Your task to perform on an android device: delete the emails in spam in the gmail app Image 0: 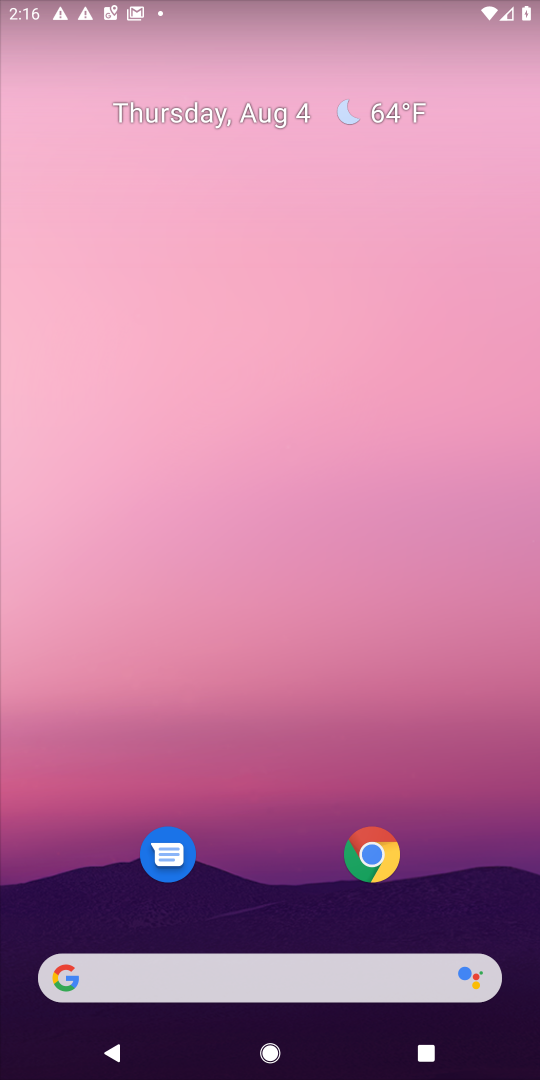
Step 0: drag from (255, 657) to (255, 299)
Your task to perform on an android device: delete the emails in spam in the gmail app Image 1: 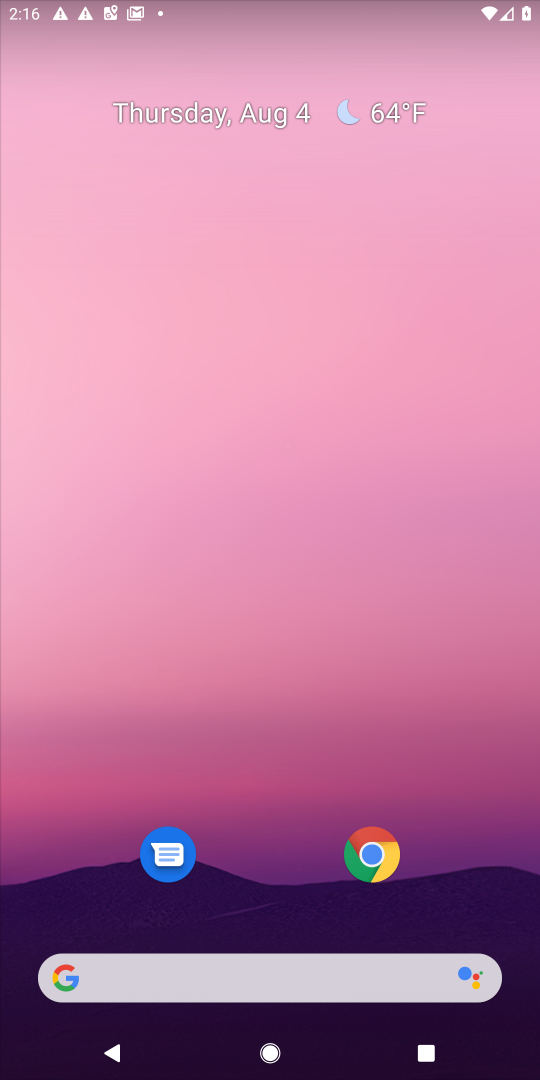
Step 1: drag from (282, 872) to (346, 221)
Your task to perform on an android device: delete the emails in spam in the gmail app Image 2: 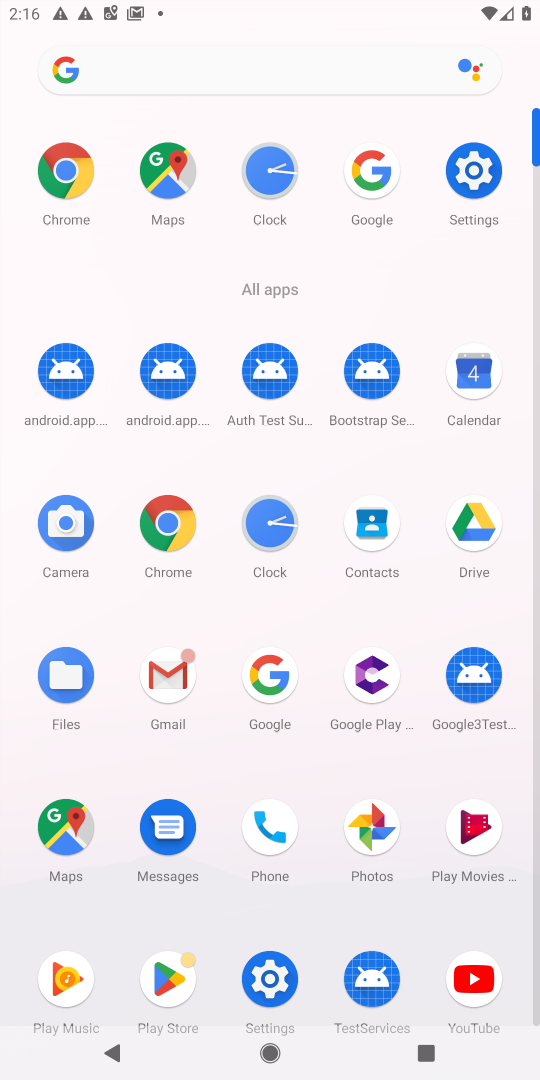
Step 2: click (171, 676)
Your task to perform on an android device: delete the emails in spam in the gmail app Image 3: 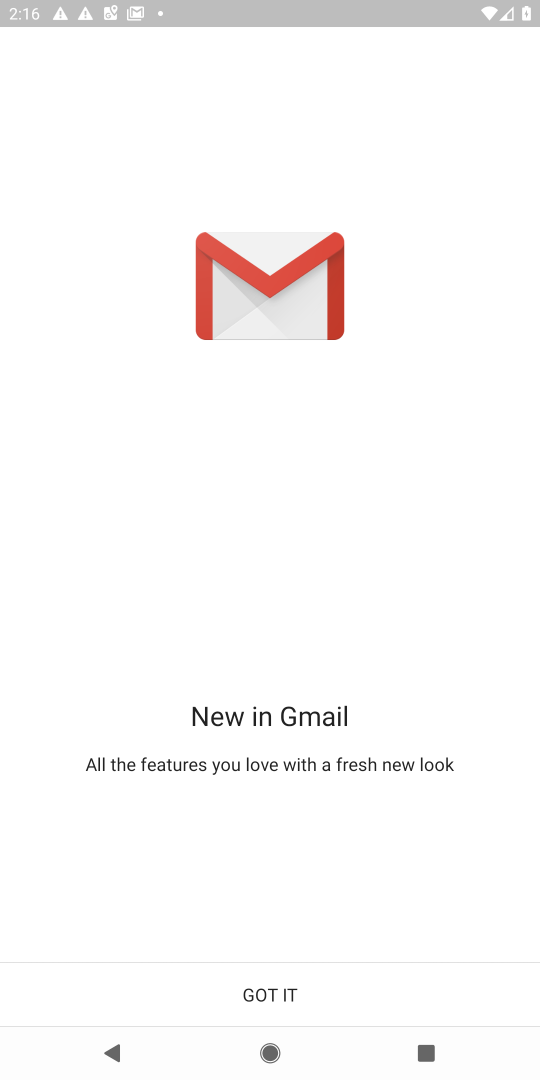
Step 3: click (251, 1006)
Your task to perform on an android device: delete the emails in spam in the gmail app Image 4: 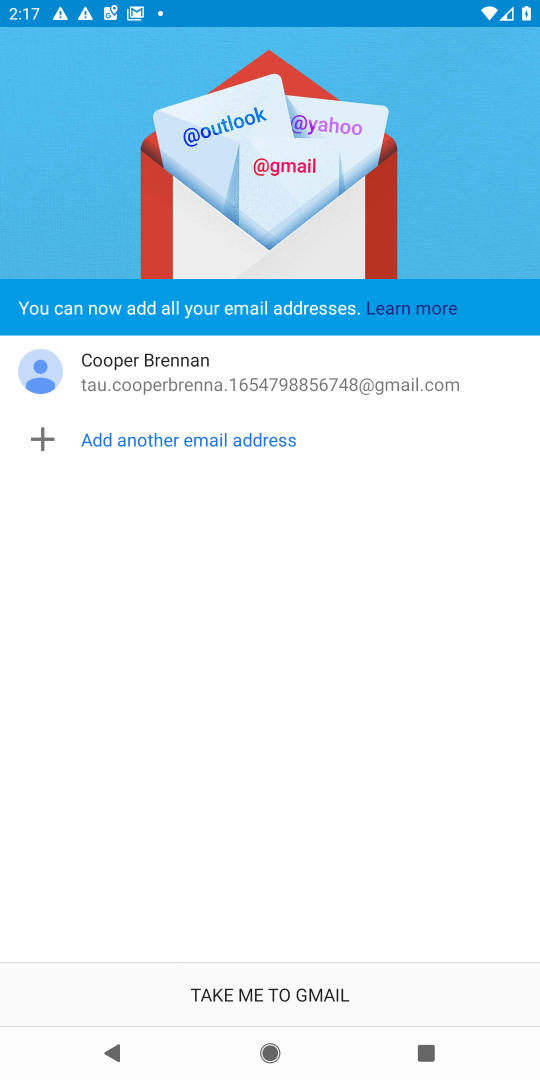
Step 4: click (255, 981)
Your task to perform on an android device: delete the emails in spam in the gmail app Image 5: 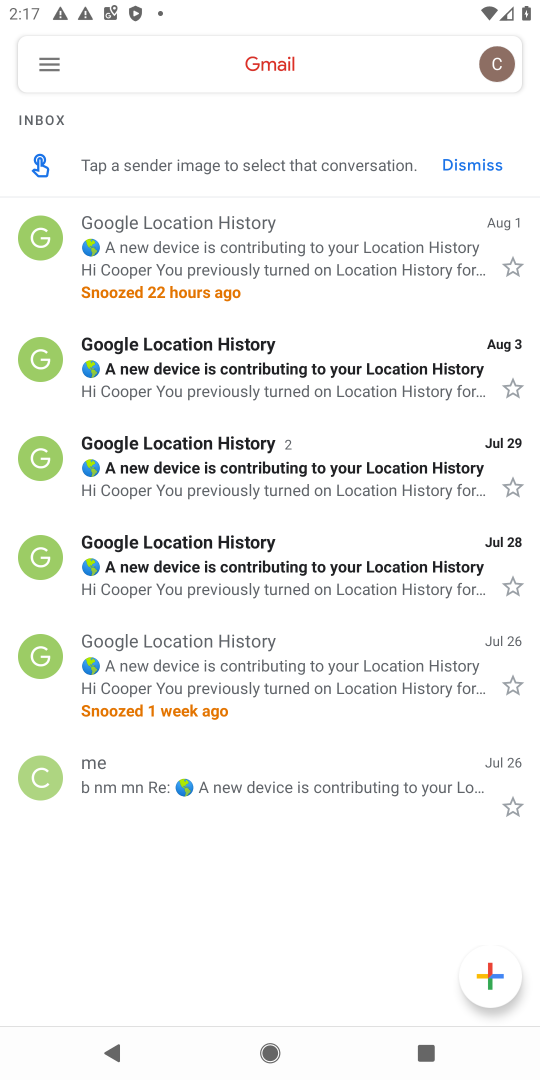
Step 5: click (299, 69)
Your task to perform on an android device: delete the emails in spam in the gmail app Image 6: 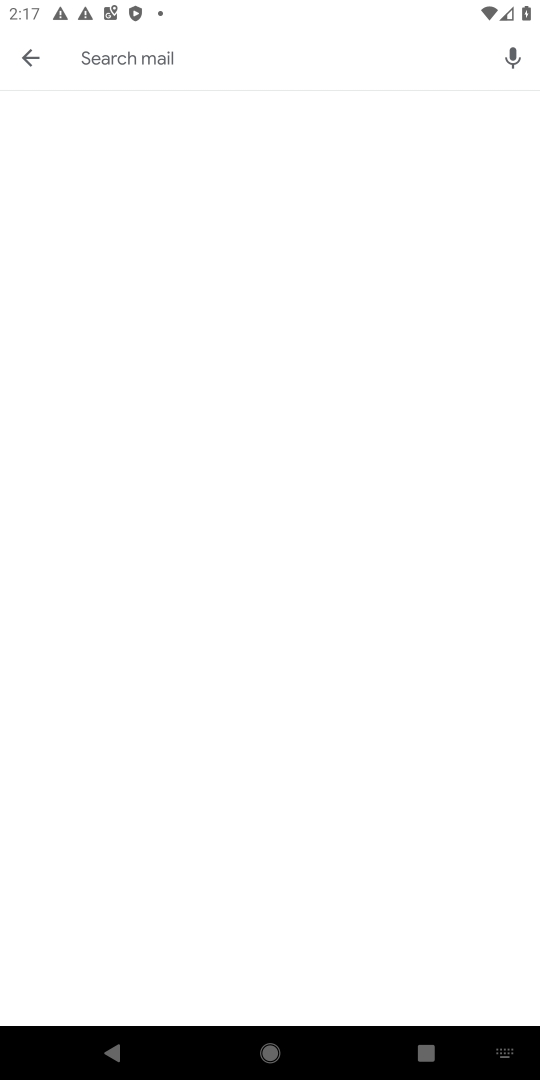
Step 6: click (40, 53)
Your task to perform on an android device: delete the emails in spam in the gmail app Image 7: 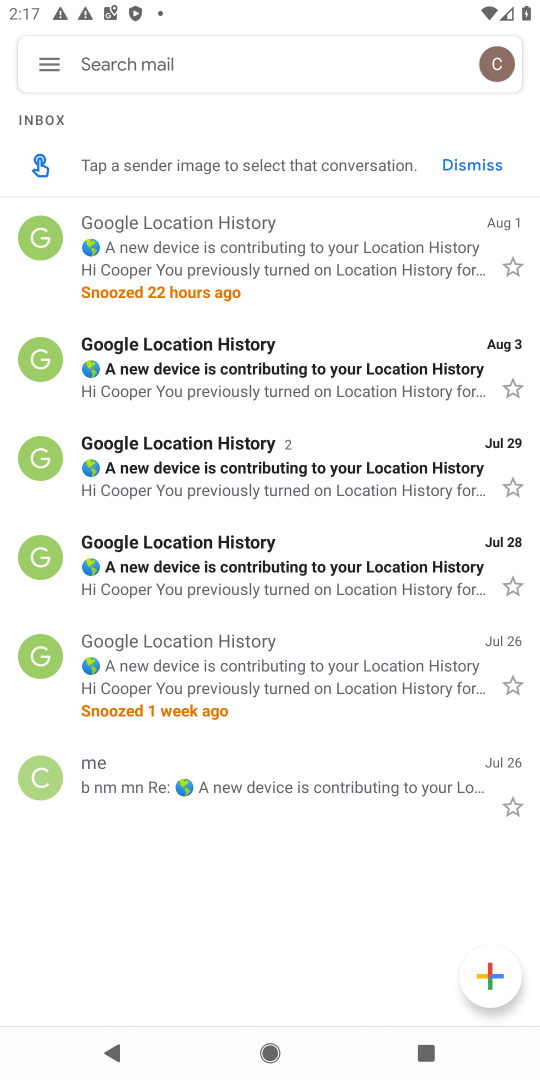
Step 7: click (47, 61)
Your task to perform on an android device: delete the emails in spam in the gmail app Image 8: 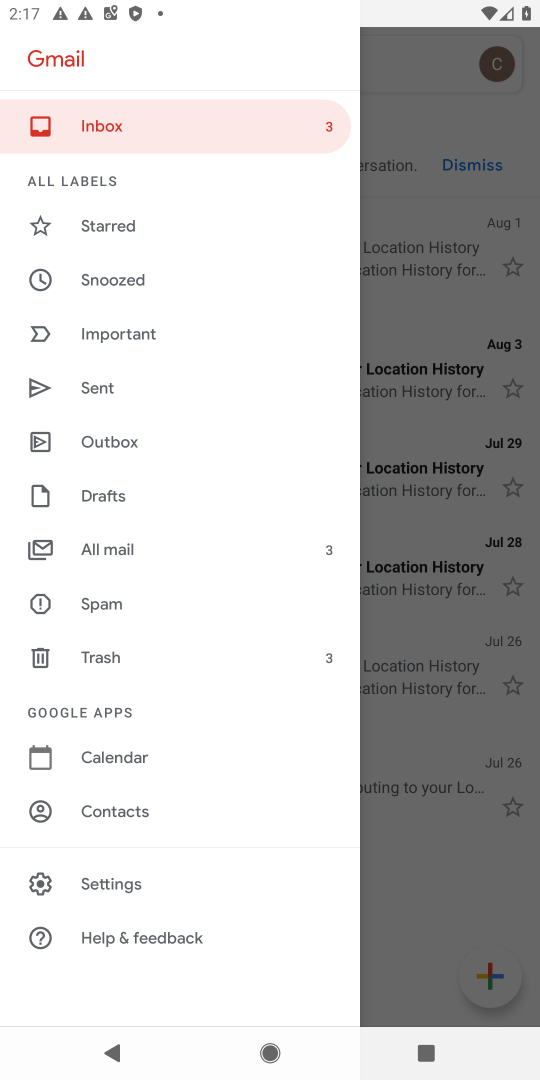
Step 8: click (74, 608)
Your task to perform on an android device: delete the emails in spam in the gmail app Image 9: 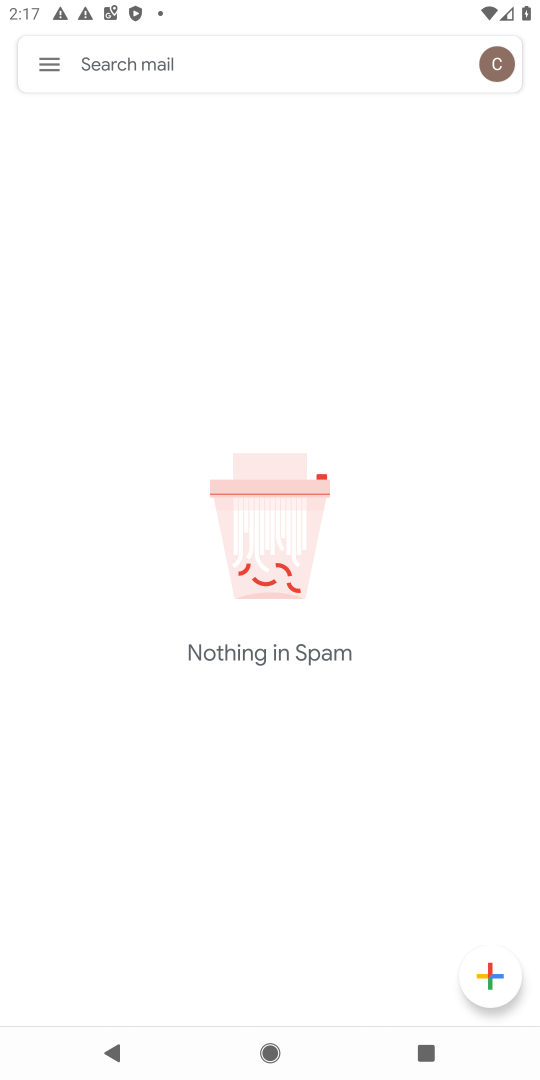
Step 9: task complete